Your task to perform on an android device: Search for Italian restaurants on Maps Image 0: 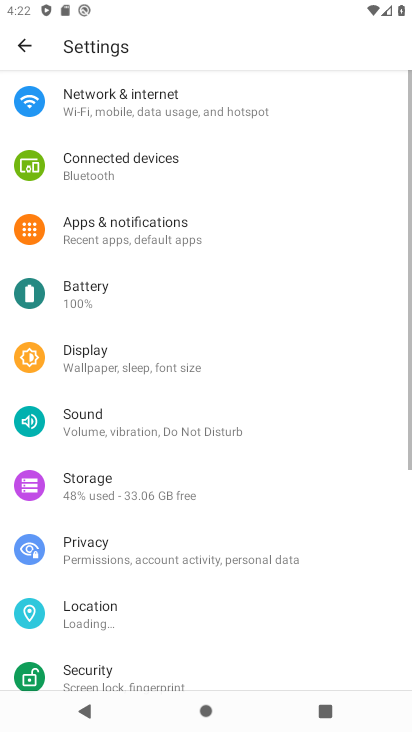
Step 0: press home button
Your task to perform on an android device: Search for Italian restaurants on Maps Image 1: 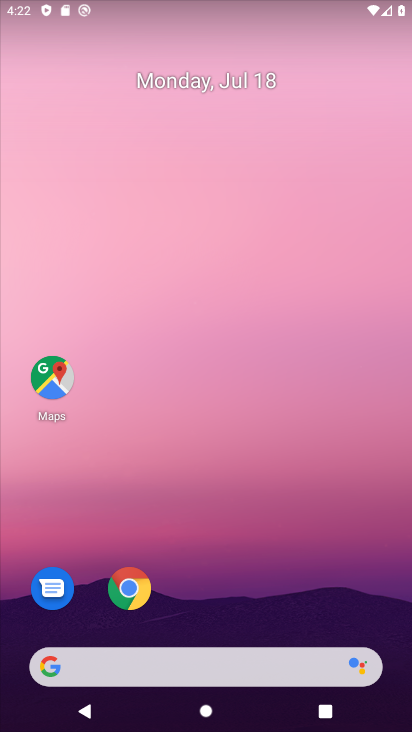
Step 1: drag from (193, 651) to (255, 172)
Your task to perform on an android device: Search for Italian restaurants on Maps Image 2: 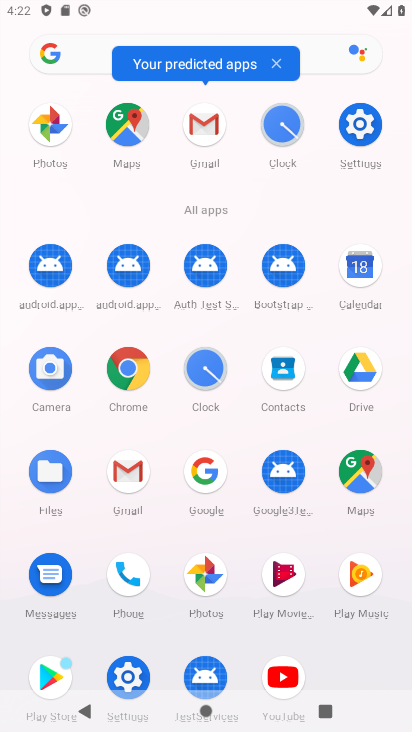
Step 2: click (355, 469)
Your task to perform on an android device: Search for Italian restaurants on Maps Image 3: 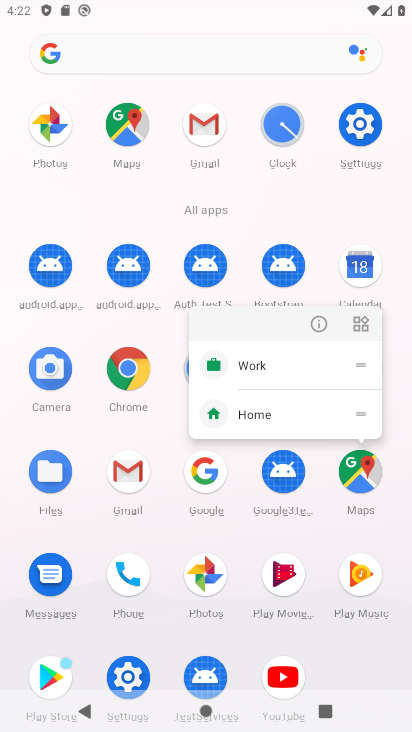
Step 3: click (371, 469)
Your task to perform on an android device: Search for Italian restaurants on Maps Image 4: 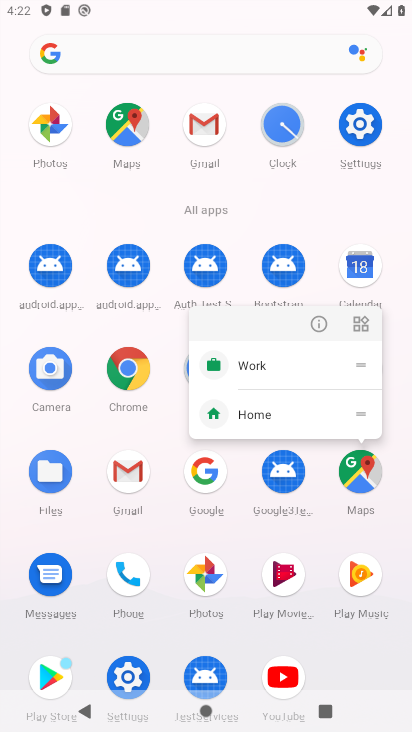
Step 4: click (373, 472)
Your task to perform on an android device: Search for Italian restaurants on Maps Image 5: 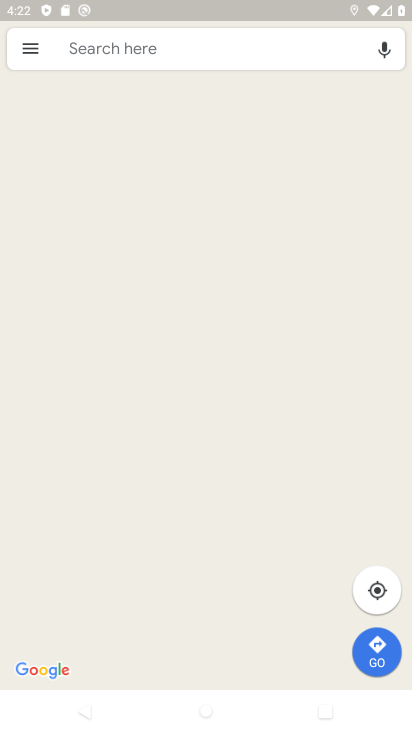
Step 5: click (155, 50)
Your task to perform on an android device: Search for Italian restaurants on Maps Image 6: 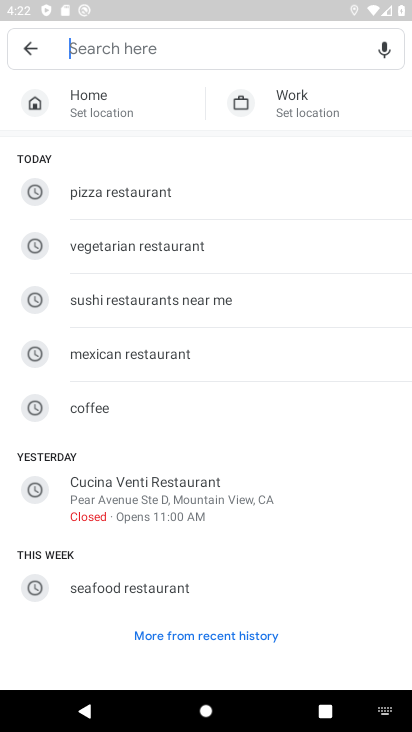
Step 6: type "Italian restaurants "
Your task to perform on an android device: Search for Italian restaurants on Maps Image 7: 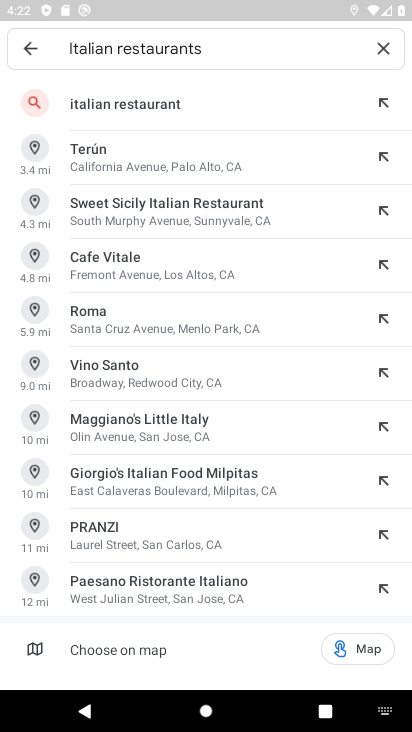
Step 7: click (206, 109)
Your task to perform on an android device: Search for Italian restaurants on Maps Image 8: 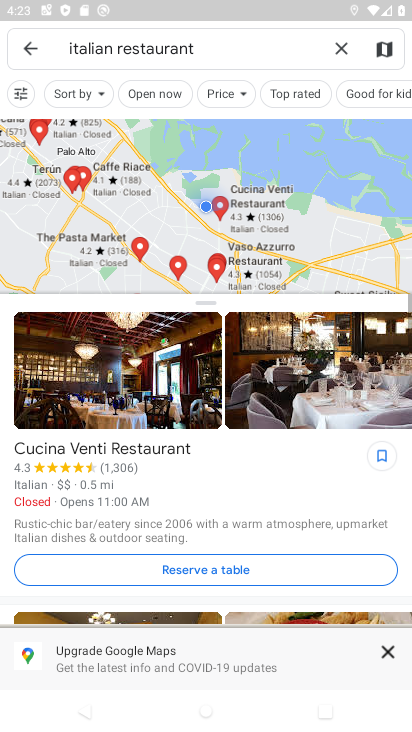
Step 8: click (396, 652)
Your task to perform on an android device: Search for Italian restaurants on Maps Image 9: 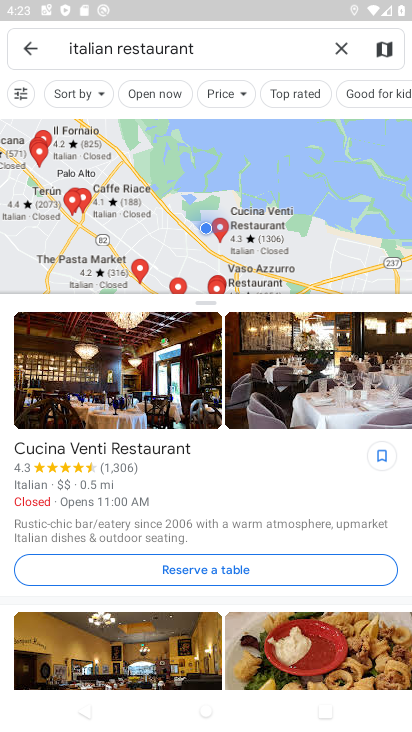
Step 9: task complete